Your task to perform on an android device: open sync settings in chrome Image 0: 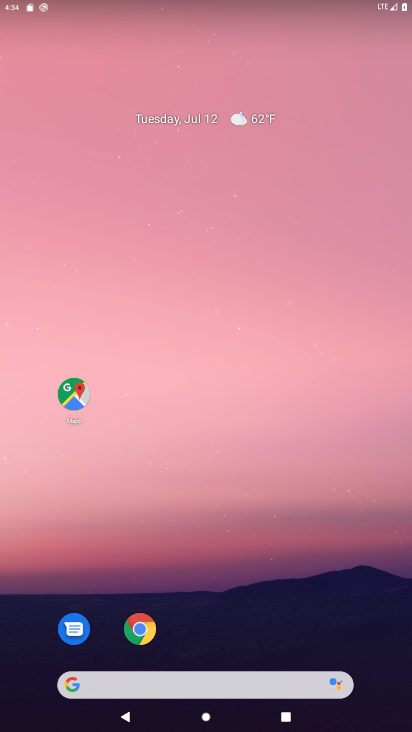
Step 0: drag from (281, 610) to (240, 92)
Your task to perform on an android device: open sync settings in chrome Image 1: 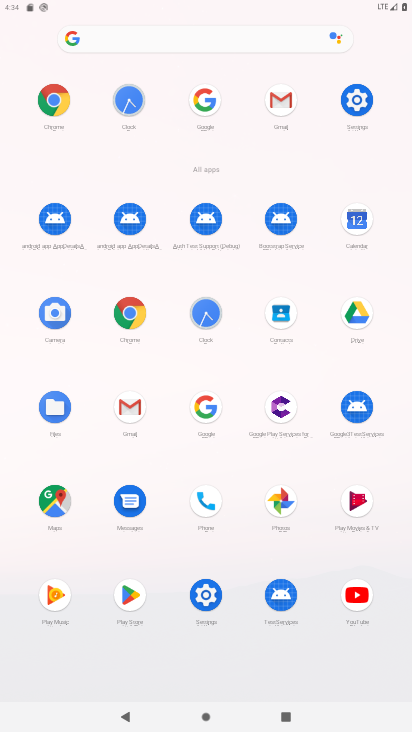
Step 1: click (363, 103)
Your task to perform on an android device: open sync settings in chrome Image 2: 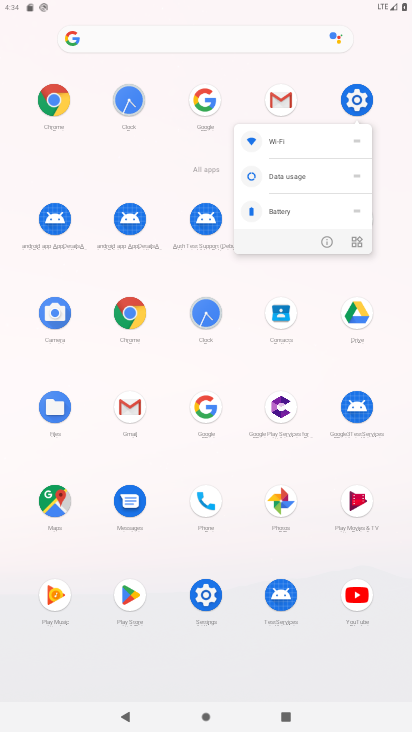
Step 2: click (363, 102)
Your task to perform on an android device: open sync settings in chrome Image 3: 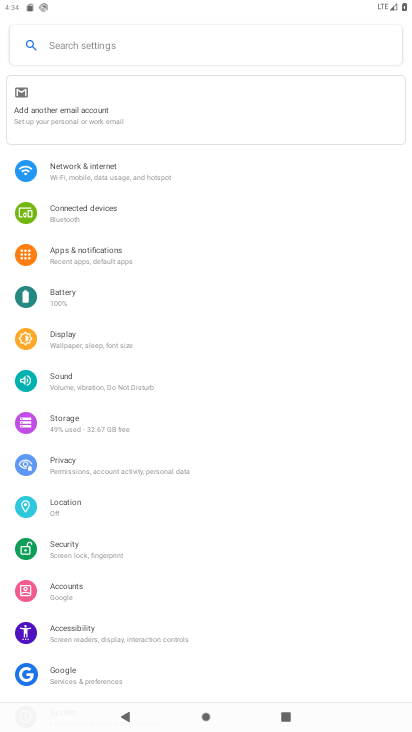
Step 3: press home button
Your task to perform on an android device: open sync settings in chrome Image 4: 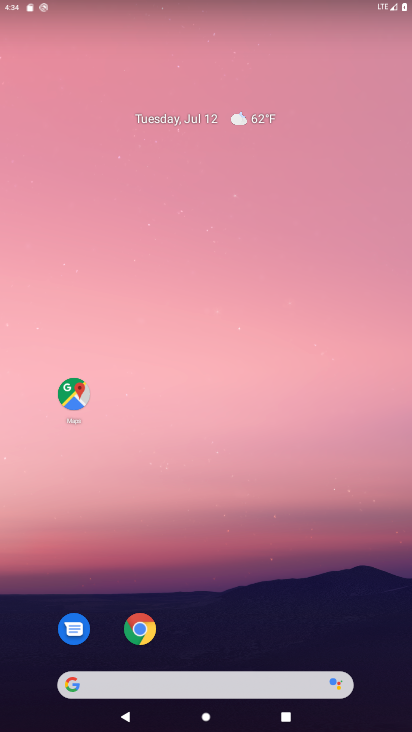
Step 4: drag from (245, 603) to (195, 114)
Your task to perform on an android device: open sync settings in chrome Image 5: 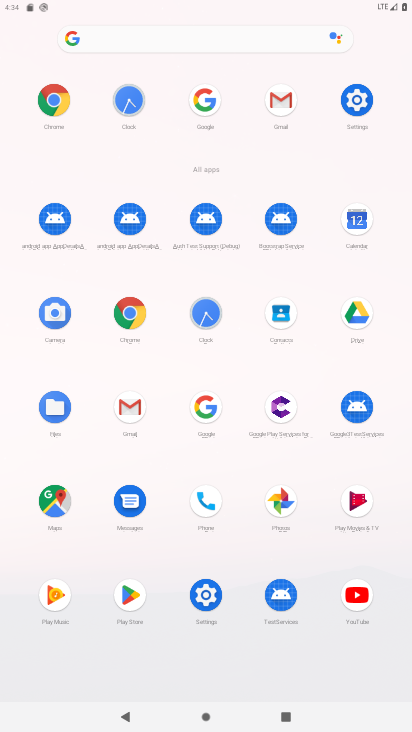
Step 5: click (60, 104)
Your task to perform on an android device: open sync settings in chrome Image 6: 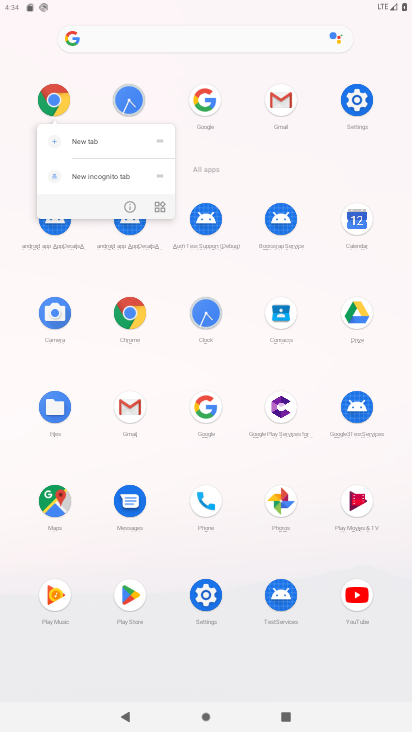
Step 6: click (60, 106)
Your task to perform on an android device: open sync settings in chrome Image 7: 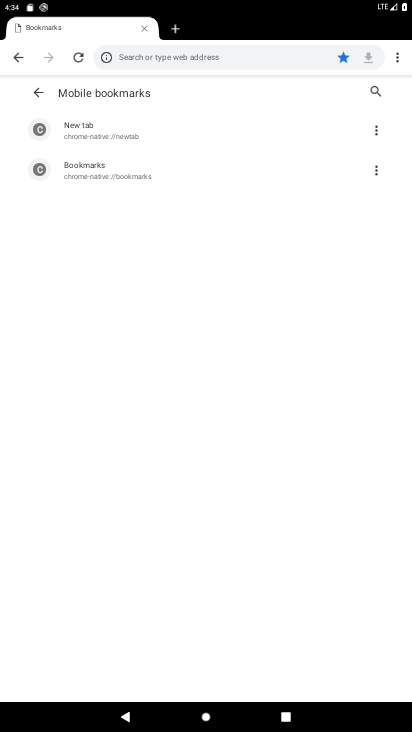
Step 7: click (38, 87)
Your task to perform on an android device: open sync settings in chrome Image 8: 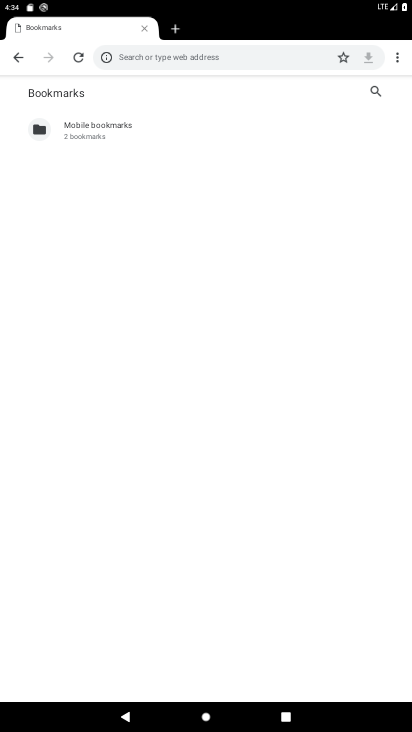
Step 8: click (16, 56)
Your task to perform on an android device: open sync settings in chrome Image 9: 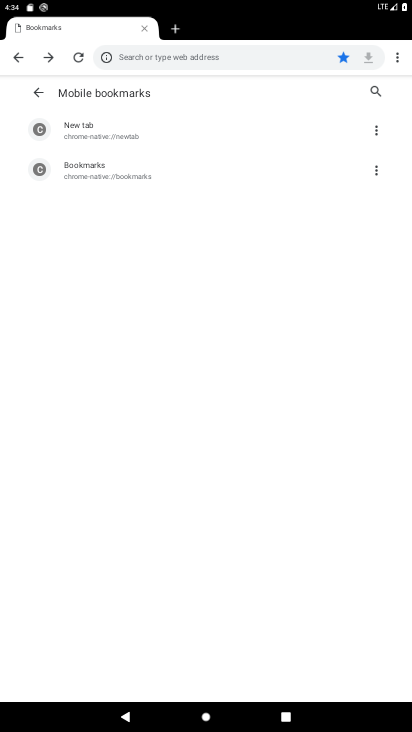
Step 9: click (16, 57)
Your task to perform on an android device: open sync settings in chrome Image 10: 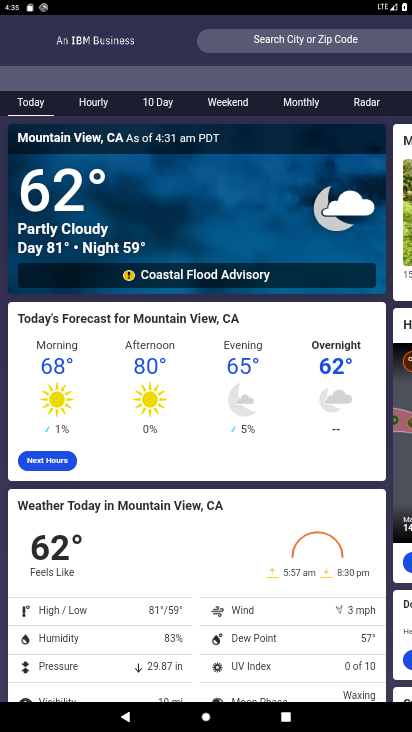
Step 10: press back button
Your task to perform on an android device: open sync settings in chrome Image 11: 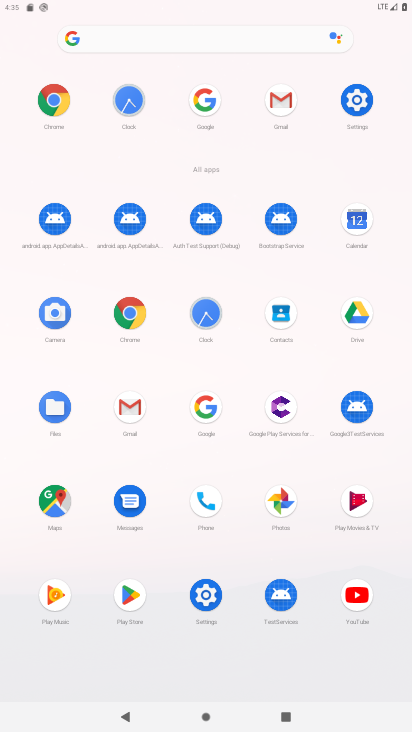
Step 11: click (48, 81)
Your task to perform on an android device: open sync settings in chrome Image 12: 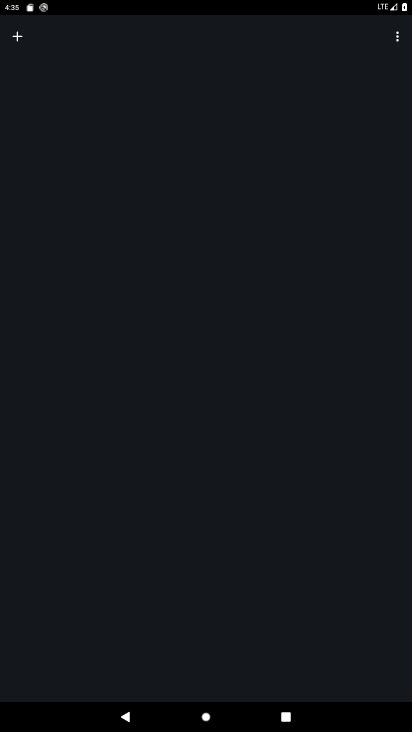
Step 12: drag from (404, 41) to (292, 105)
Your task to perform on an android device: open sync settings in chrome Image 13: 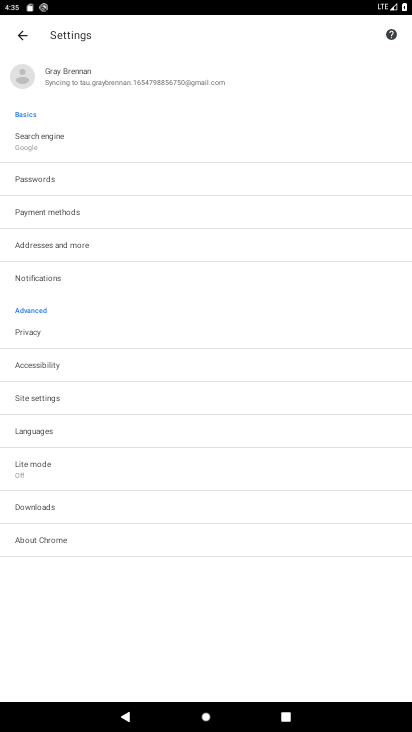
Step 13: click (62, 398)
Your task to perform on an android device: open sync settings in chrome Image 14: 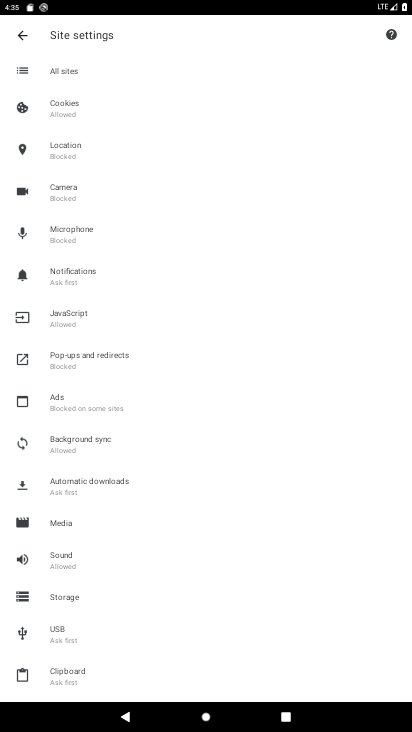
Step 14: click (67, 428)
Your task to perform on an android device: open sync settings in chrome Image 15: 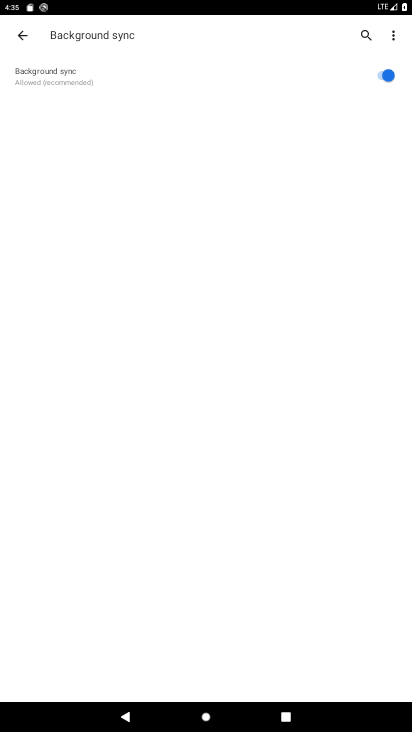
Step 15: task complete